Your task to perform on an android device: allow cookies in the chrome app Image 0: 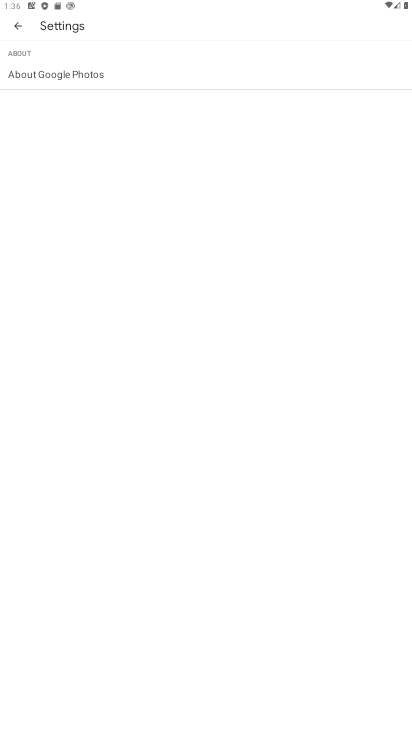
Step 0: press home button
Your task to perform on an android device: allow cookies in the chrome app Image 1: 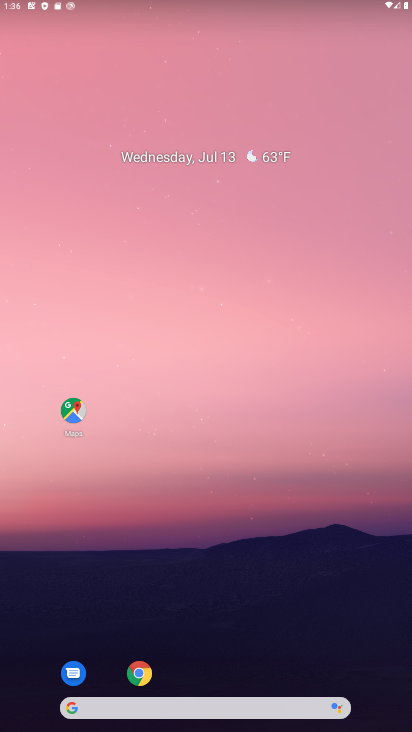
Step 1: drag from (177, 661) to (186, 254)
Your task to perform on an android device: allow cookies in the chrome app Image 2: 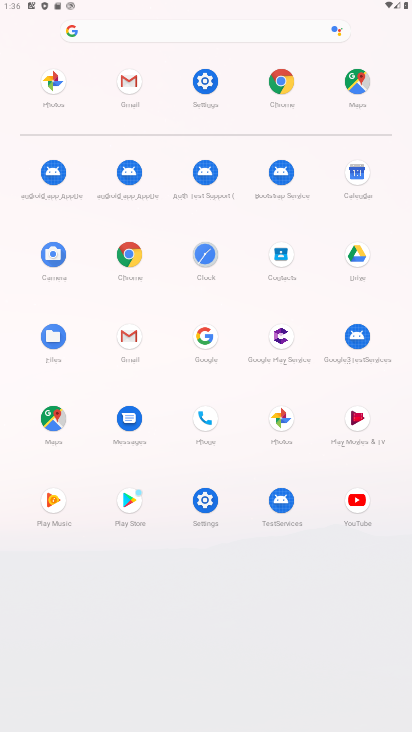
Step 2: click (273, 74)
Your task to perform on an android device: allow cookies in the chrome app Image 3: 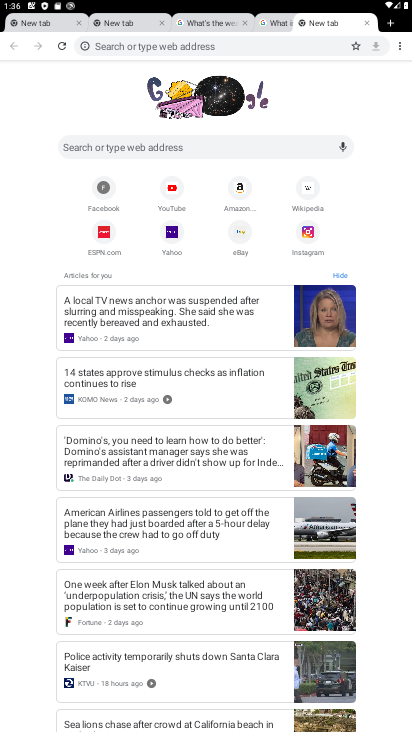
Step 3: click (398, 50)
Your task to perform on an android device: allow cookies in the chrome app Image 4: 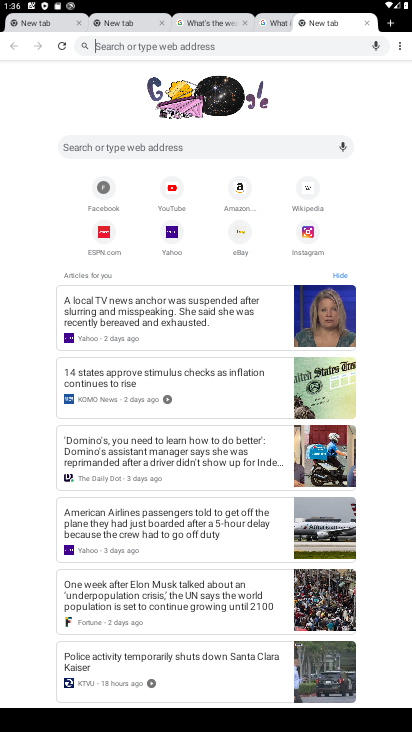
Step 4: click (400, 39)
Your task to perform on an android device: allow cookies in the chrome app Image 5: 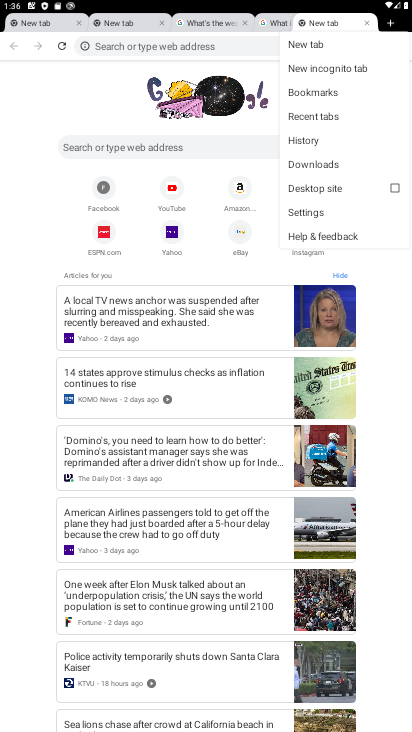
Step 5: click (308, 215)
Your task to perform on an android device: allow cookies in the chrome app Image 6: 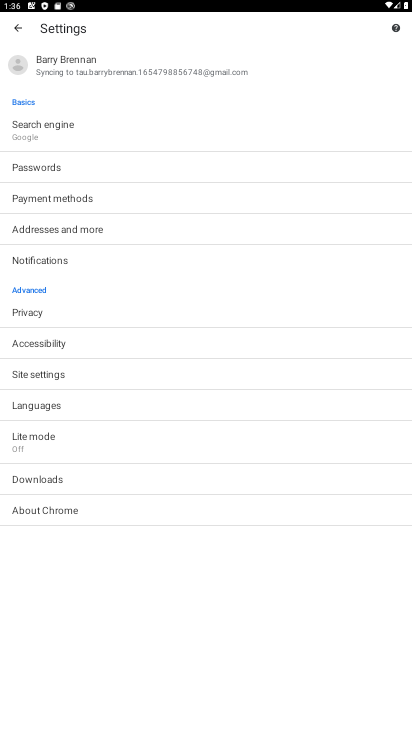
Step 6: click (78, 370)
Your task to perform on an android device: allow cookies in the chrome app Image 7: 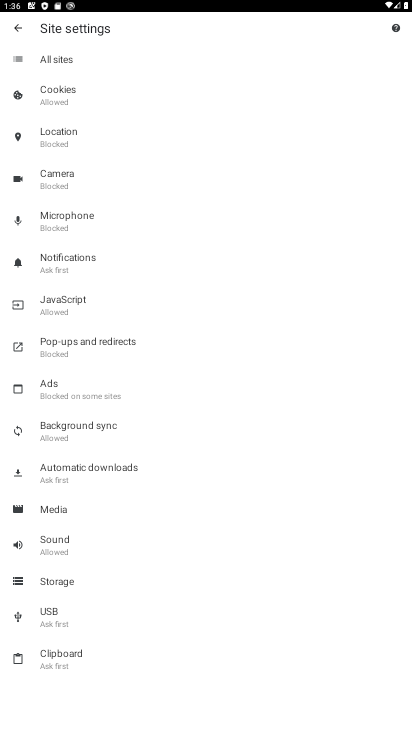
Step 7: click (65, 91)
Your task to perform on an android device: allow cookies in the chrome app Image 8: 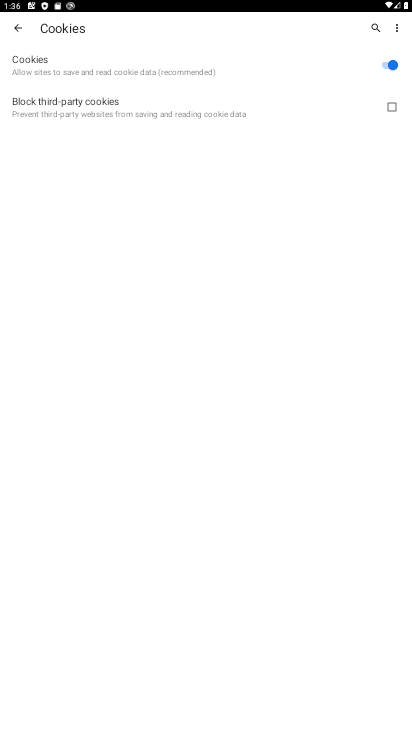
Step 8: task complete